Your task to perform on an android device: change notification settings in the gmail app Image 0: 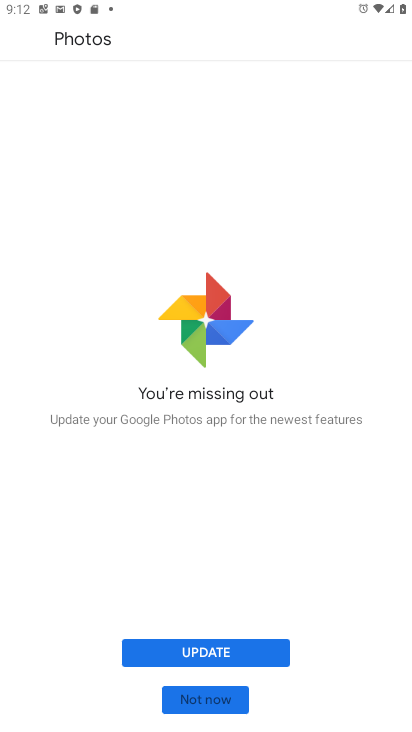
Step 0: press home button
Your task to perform on an android device: change notification settings in the gmail app Image 1: 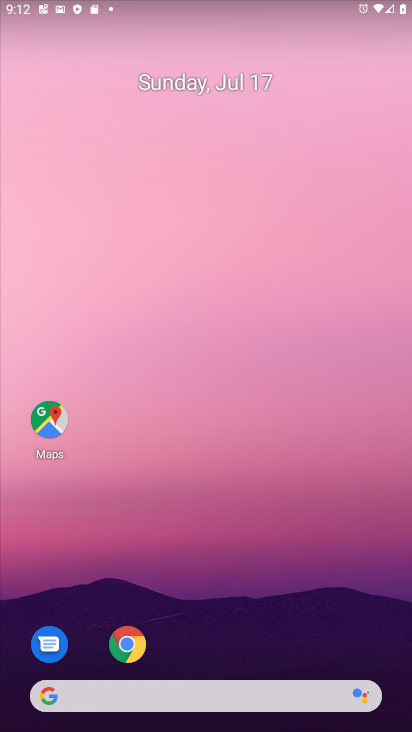
Step 1: drag from (211, 670) to (208, 69)
Your task to perform on an android device: change notification settings in the gmail app Image 2: 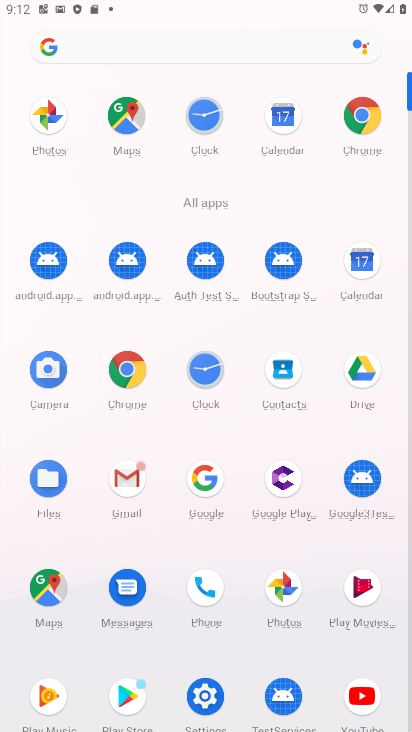
Step 2: click (121, 481)
Your task to perform on an android device: change notification settings in the gmail app Image 3: 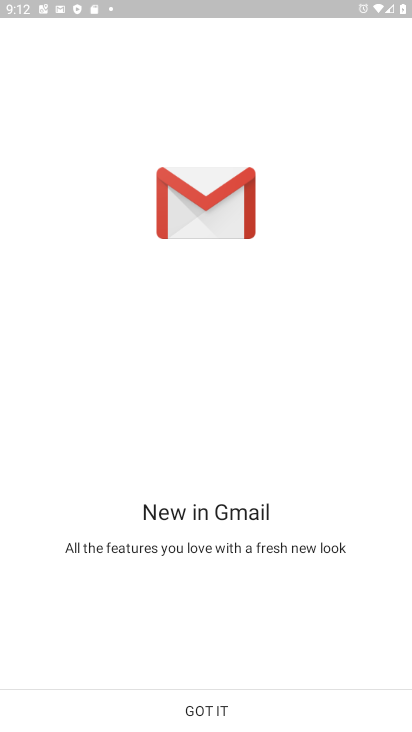
Step 3: click (246, 708)
Your task to perform on an android device: change notification settings in the gmail app Image 4: 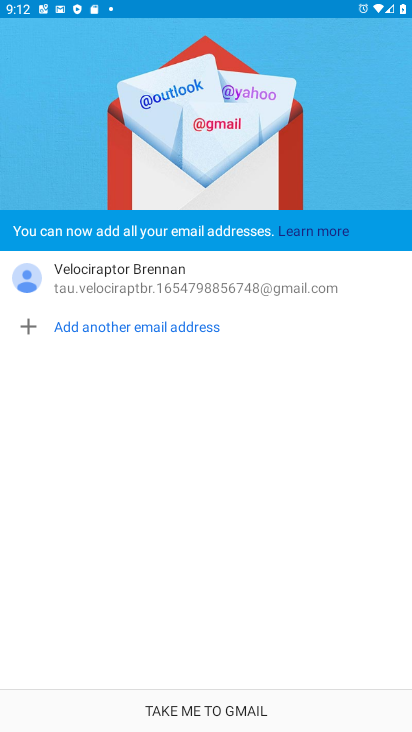
Step 4: click (210, 717)
Your task to perform on an android device: change notification settings in the gmail app Image 5: 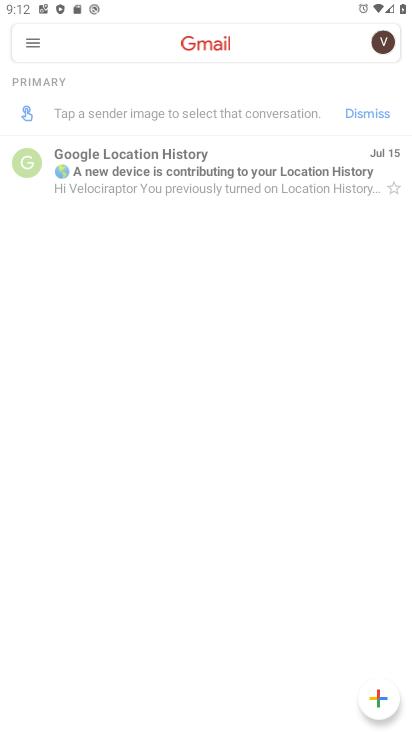
Step 5: click (37, 47)
Your task to perform on an android device: change notification settings in the gmail app Image 6: 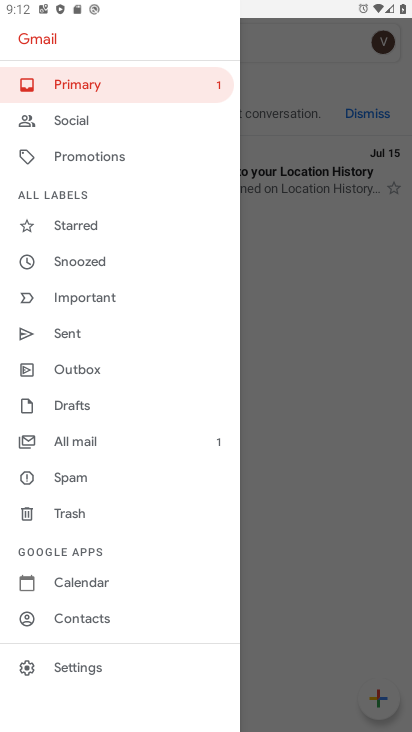
Step 6: drag from (109, 601) to (134, 220)
Your task to perform on an android device: change notification settings in the gmail app Image 7: 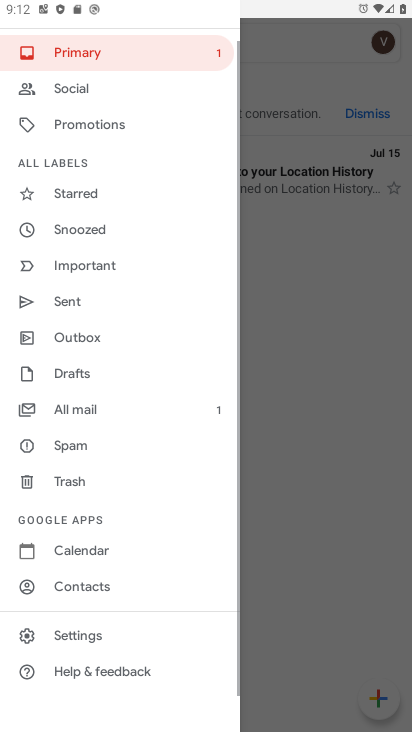
Step 7: click (81, 632)
Your task to perform on an android device: change notification settings in the gmail app Image 8: 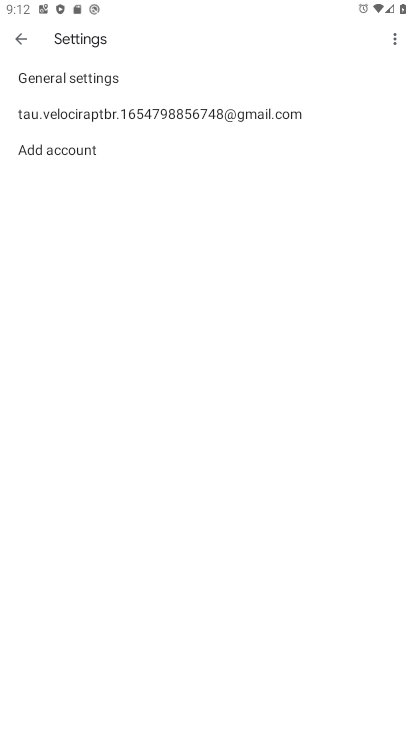
Step 8: click (52, 105)
Your task to perform on an android device: change notification settings in the gmail app Image 9: 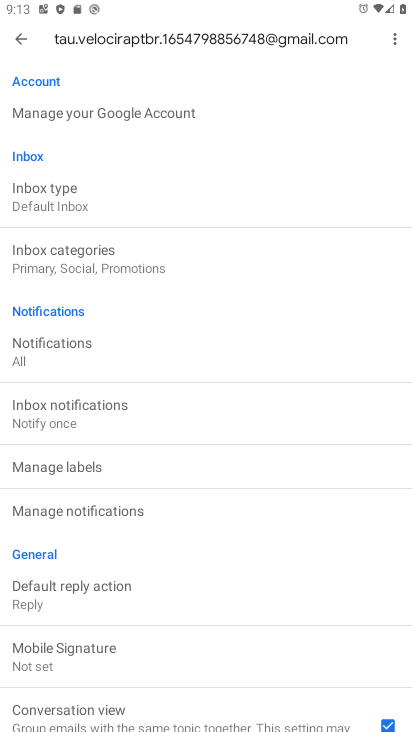
Step 9: drag from (140, 486) to (139, 324)
Your task to perform on an android device: change notification settings in the gmail app Image 10: 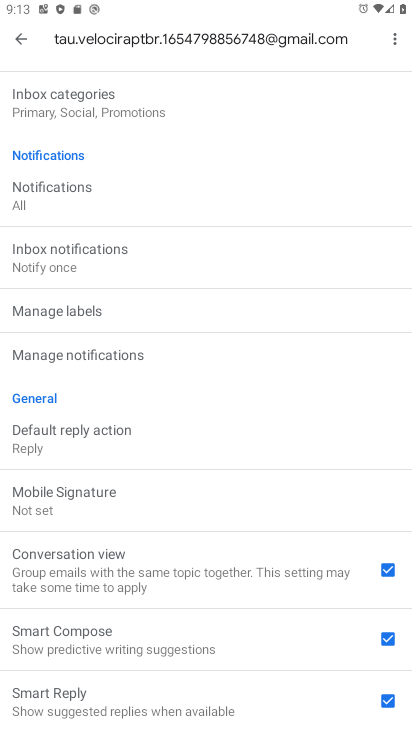
Step 10: click (59, 180)
Your task to perform on an android device: change notification settings in the gmail app Image 11: 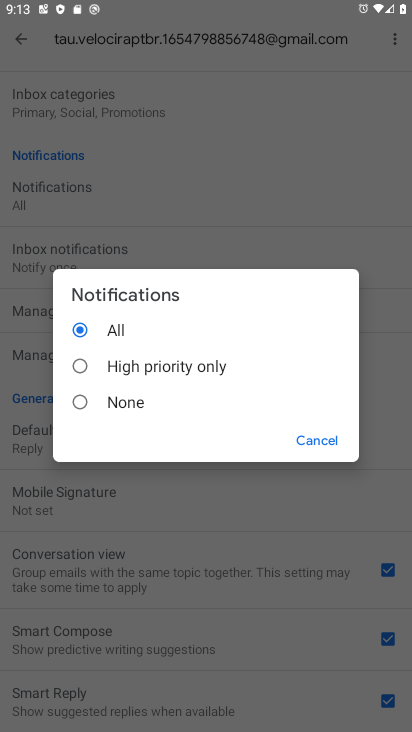
Step 11: task complete